Your task to perform on an android device: open chrome privacy settings Image 0: 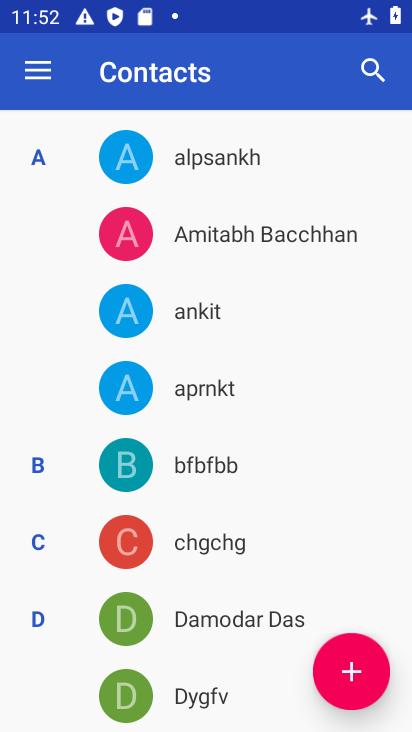
Step 0: press home button
Your task to perform on an android device: open chrome privacy settings Image 1: 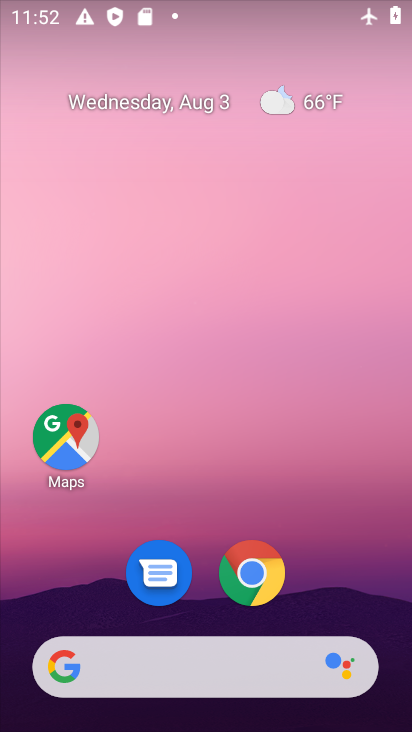
Step 1: drag from (340, 559) to (258, 122)
Your task to perform on an android device: open chrome privacy settings Image 2: 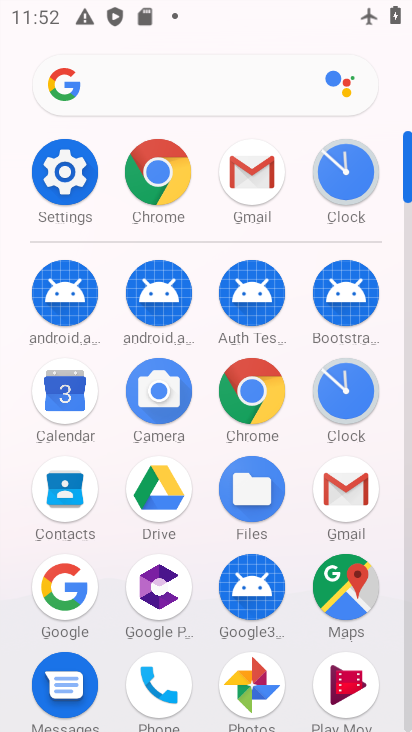
Step 2: click (253, 397)
Your task to perform on an android device: open chrome privacy settings Image 3: 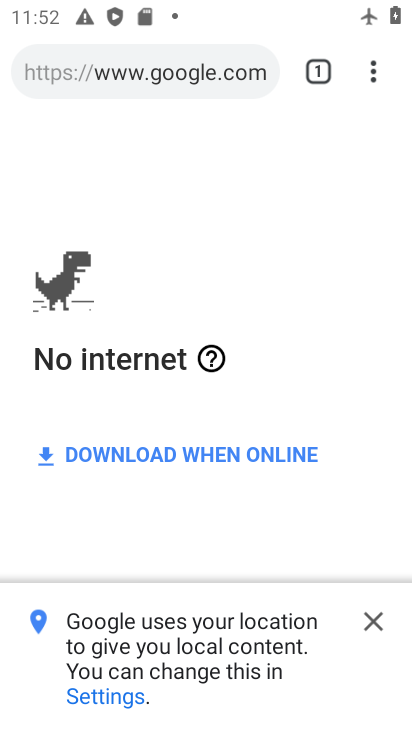
Step 3: drag from (371, 75) to (162, 571)
Your task to perform on an android device: open chrome privacy settings Image 4: 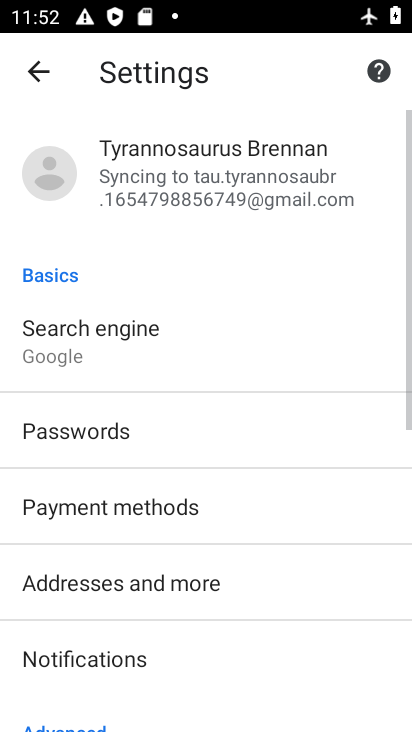
Step 4: drag from (362, 613) to (305, 156)
Your task to perform on an android device: open chrome privacy settings Image 5: 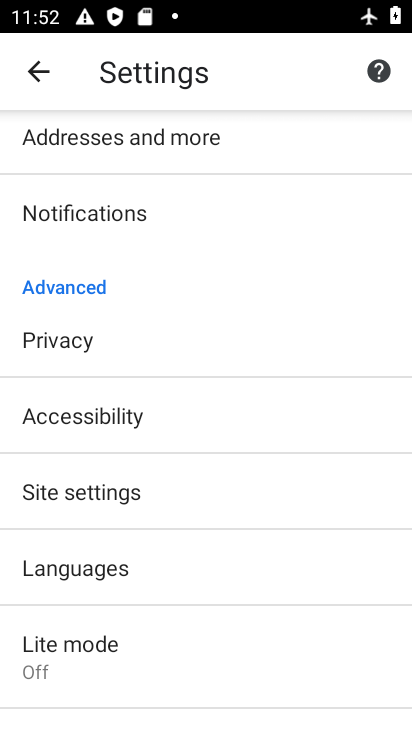
Step 5: click (88, 343)
Your task to perform on an android device: open chrome privacy settings Image 6: 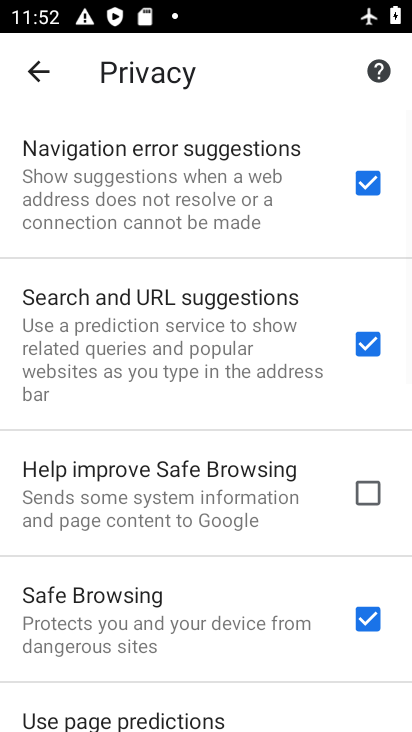
Step 6: task complete